Your task to perform on an android device: Open settings on Google Maps Image 0: 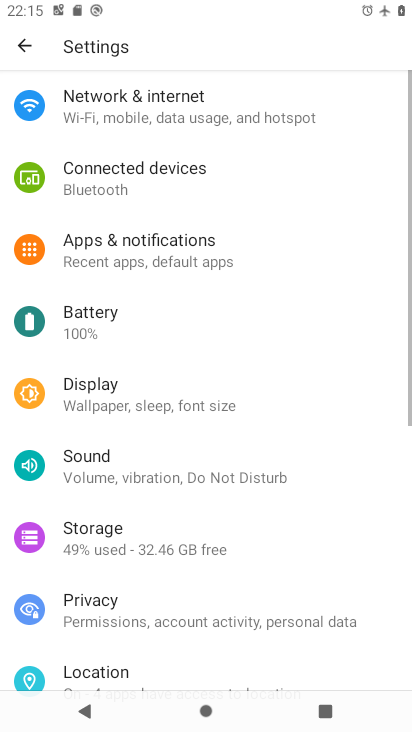
Step 0: press home button
Your task to perform on an android device: Open settings on Google Maps Image 1: 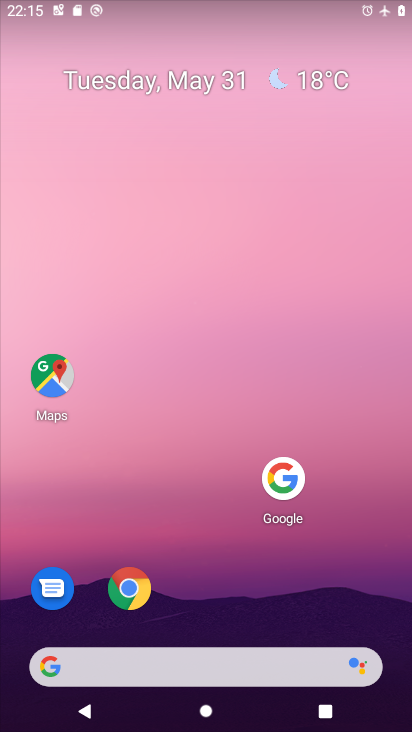
Step 1: click (39, 393)
Your task to perform on an android device: Open settings on Google Maps Image 2: 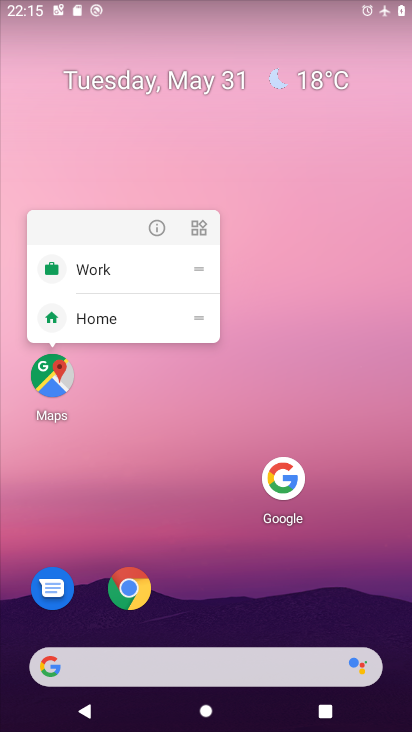
Step 2: click (54, 384)
Your task to perform on an android device: Open settings on Google Maps Image 3: 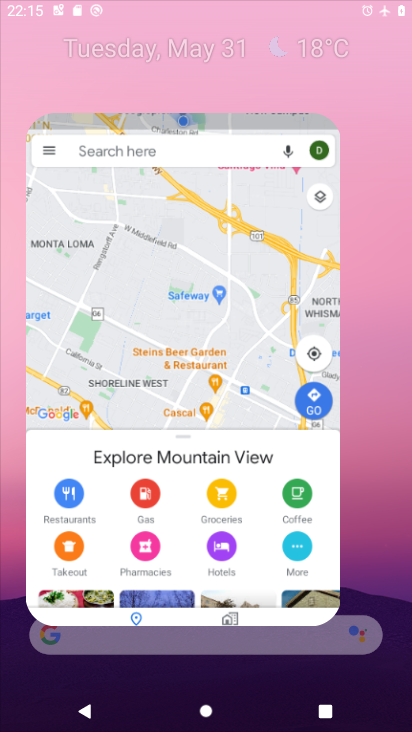
Step 3: click (54, 384)
Your task to perform on an android device: Open settings on Google Maps Image 4: 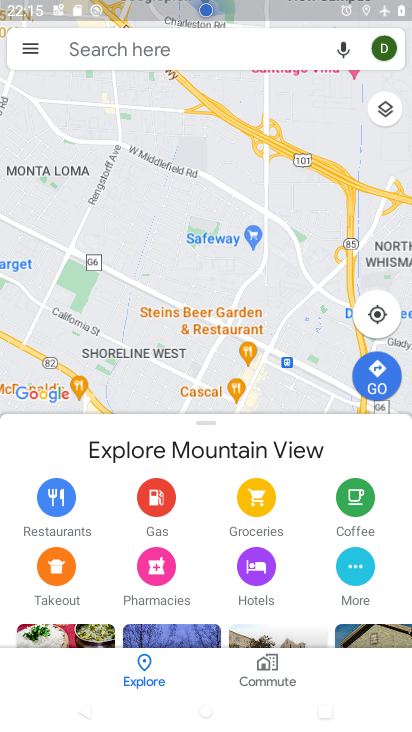
Step 4: click (29, 50)
Your task to perform on an android device: Open settings on Google Maps Image 5: 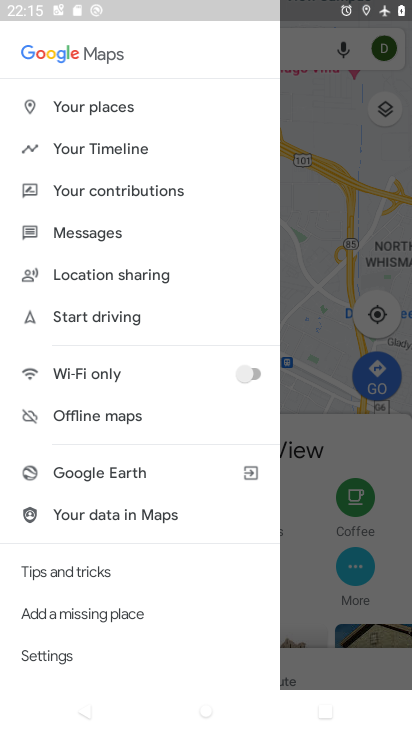
Step 5: click (60, 661)
Your task to perform on an android device: Open settings on Google Maps Image 6: 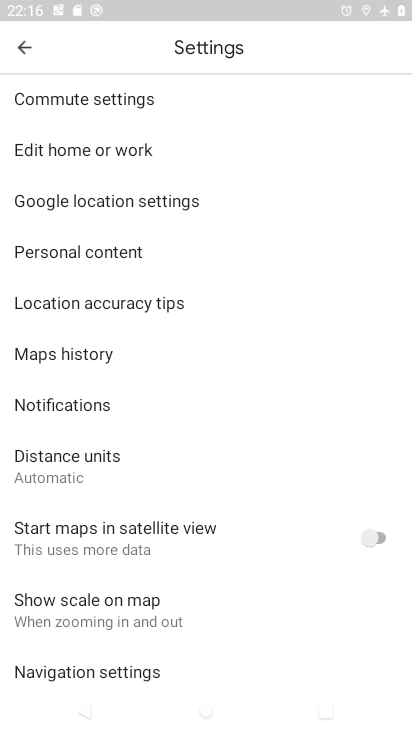
Step 6: task complete